Your task to perform on an android device: Open Yahoo.com Image 0: 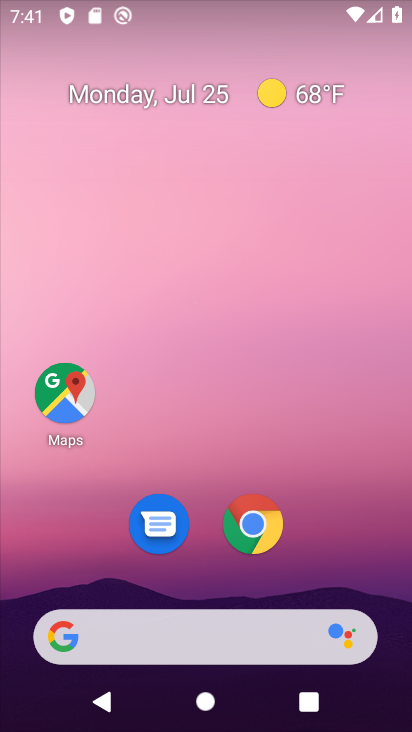
Step 0: click (246, 645)
Your task to perform on an android device: Open Yahoo.com Image 1: 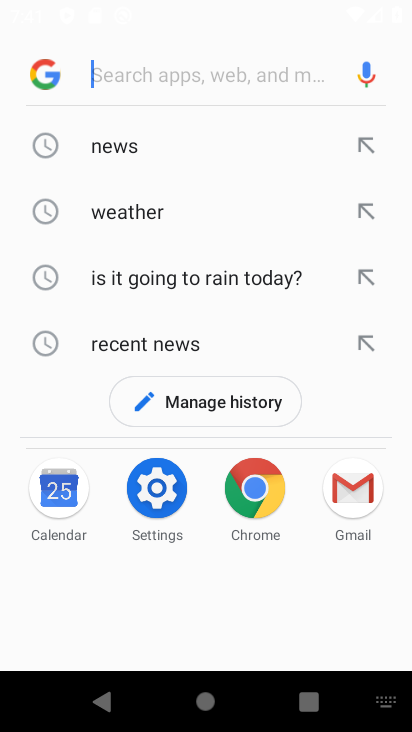
Step 1: type "yahoo.com"
Your task to perform on an android device: Open Yahoo.com Image 2: 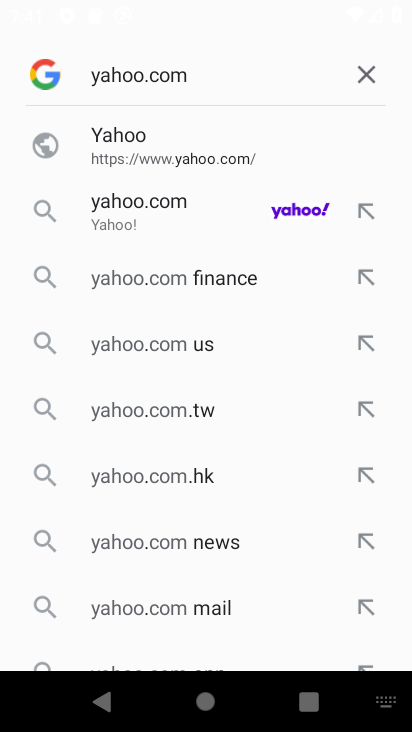
Step 2: click (315, 211)
Your task to perform on an android device: Open Yahoo.com Image 3: 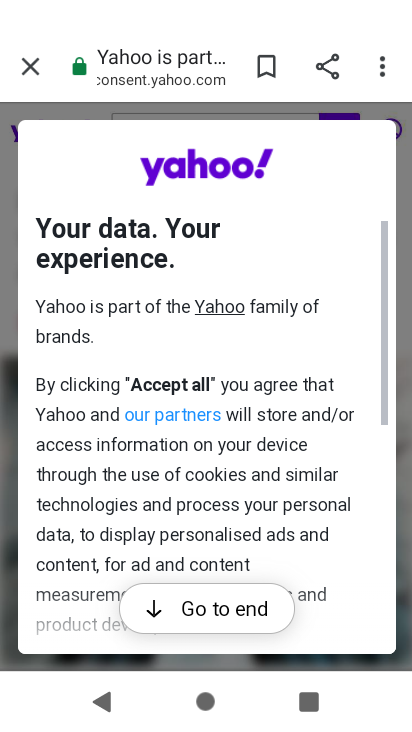
Step 3: click (231, 601)
Your task to perform on an android device: Open Yahoo.com Image 4: 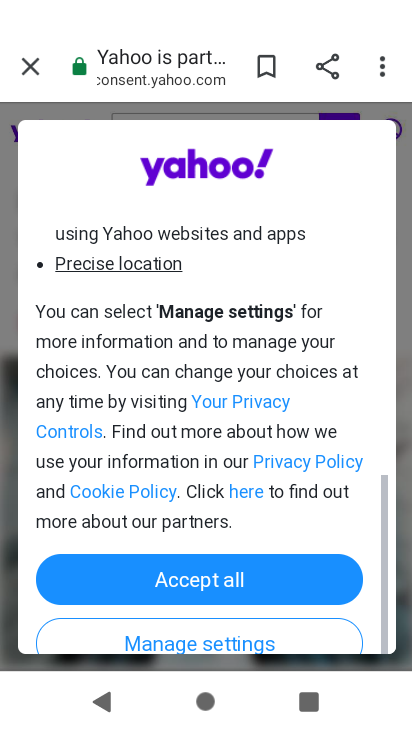
Step 4: click (243, 579)
Your task to perform on an android device: Open Yahoo.com Image 5: 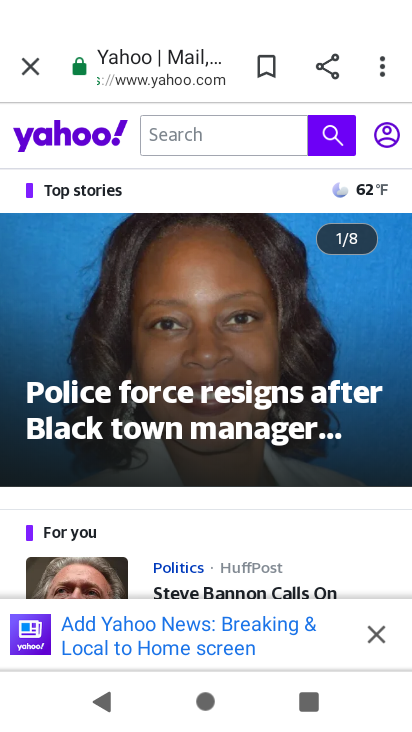
Step 5: task complete